Your task to perform on an android device: Show me popular games on the Play Store Image 0: 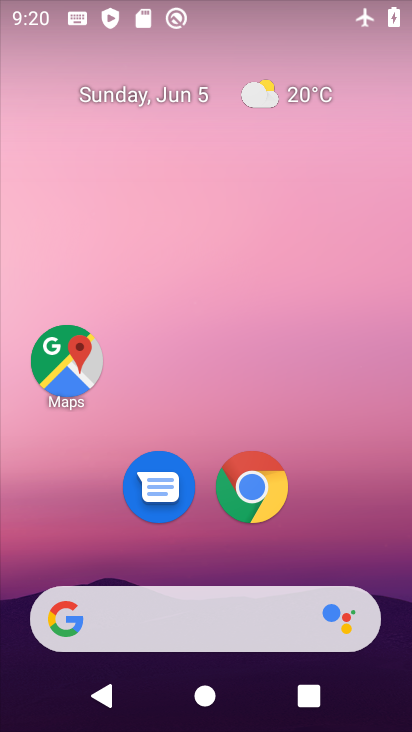
Step 0: drag from (210, 676) to (313, 181)
Your task to perform on an android device: Show me popular games on the Play Store Image 1: 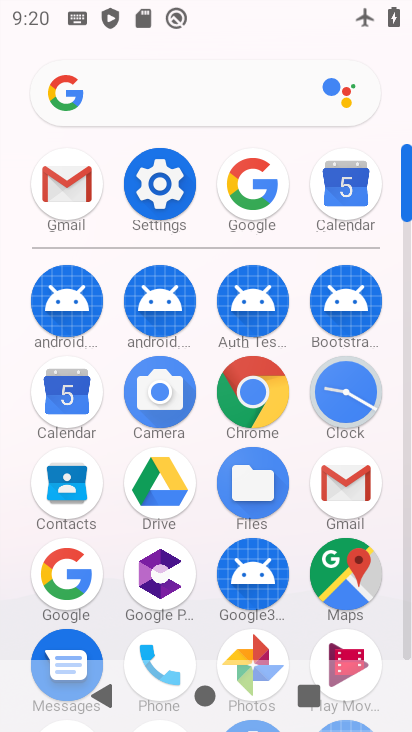
Step 1: drag from (269, 489) to (297, 251)
Your task to perform on an android device: Show me popular games on the Play Store Image 2: 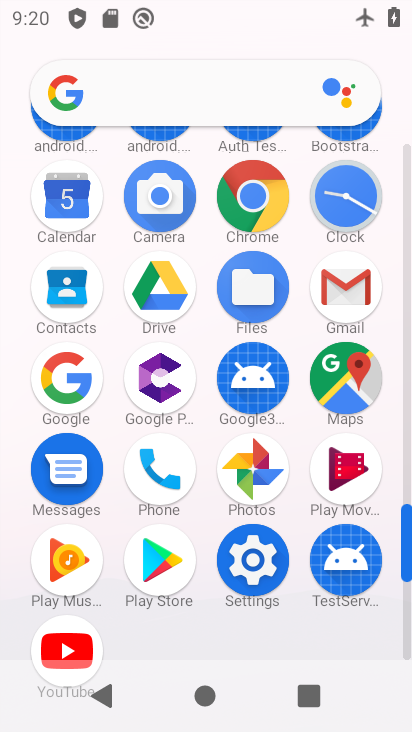
Step 2: click (164, 571)
Your task to perform on an android device: Show me popular games on the Play Store Image 3: 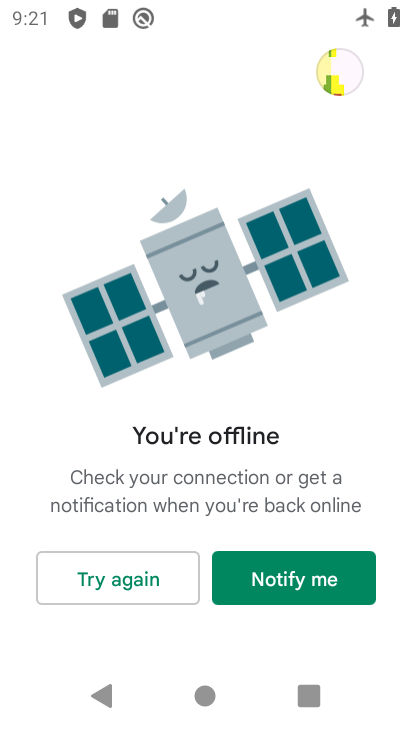
Step 3: task complete